Your task to perform on an android device: delete browsing data in the chrome app Image 0: 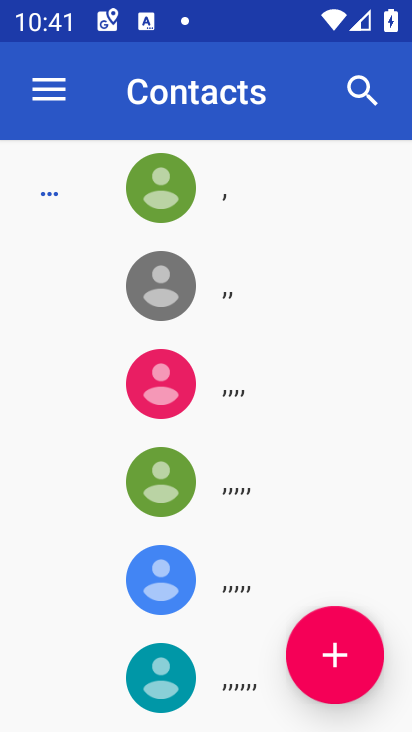
Step 0: press home button
Your task to perform on an android device: delete browsing data in the chrome app Image 1: 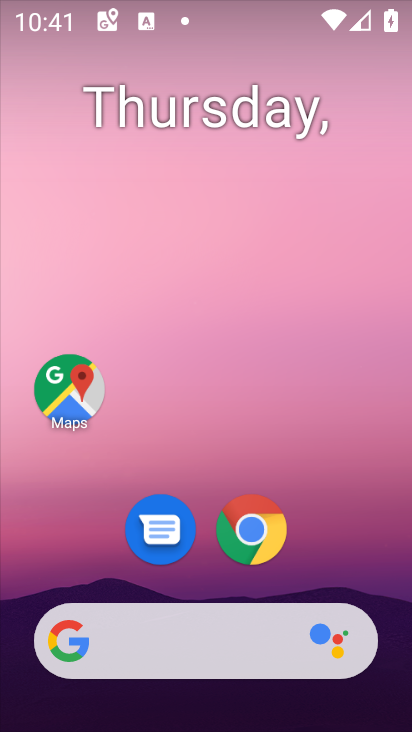
Step 1: click (253, 533)
Your task to perform on an android device: delete browsing data in the chrome app Image 2: 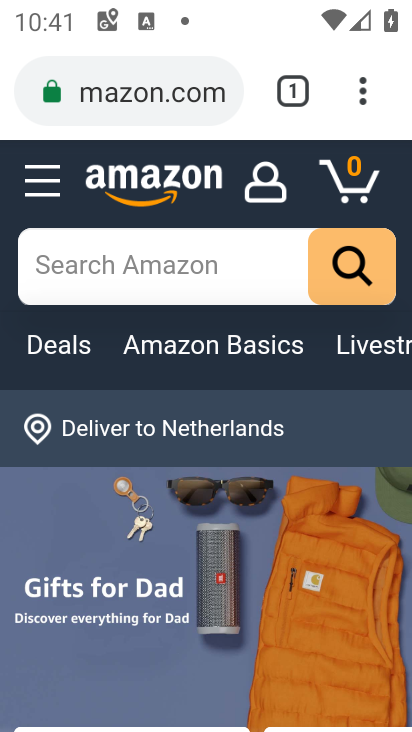
Step 2: click (367, 112)
Your task to perform on an android device: delete browsing data in the chrome app Image 3: 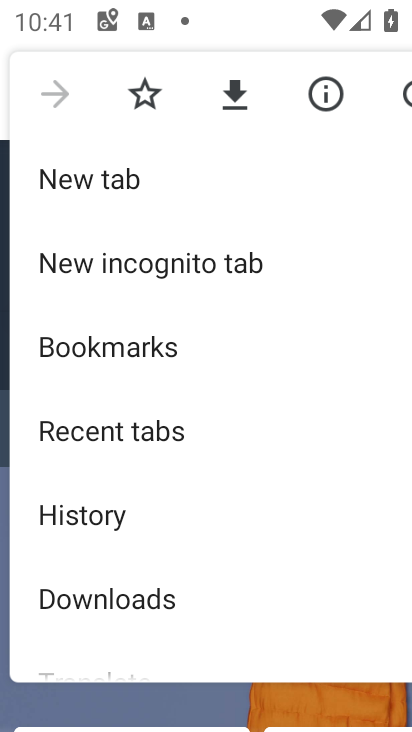
Step 3: click (127, 514)
Your task to perform on an android device: delete browsing data in the chrome app Image 4: 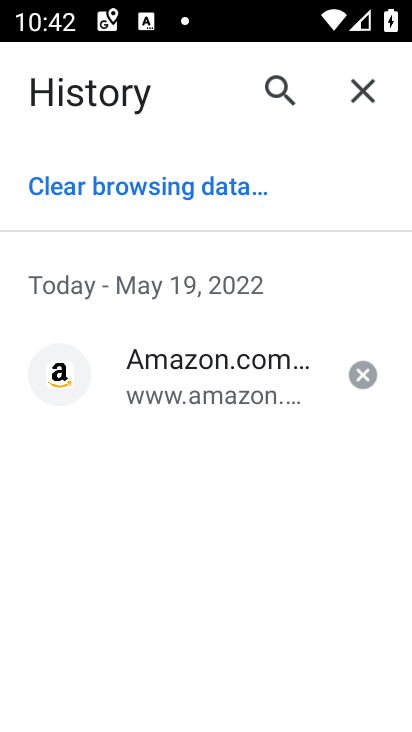
Step 4: click (70, 205)
Your task to perform on an android device: delete browsing data in the chrome app Image 5: 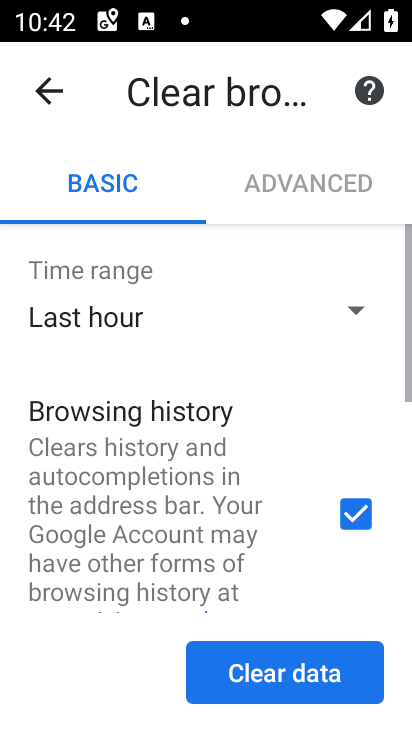
Step 5: click (302, 679)
Your task to perform on an android device: delete browsing data in the chrome app Image 6: 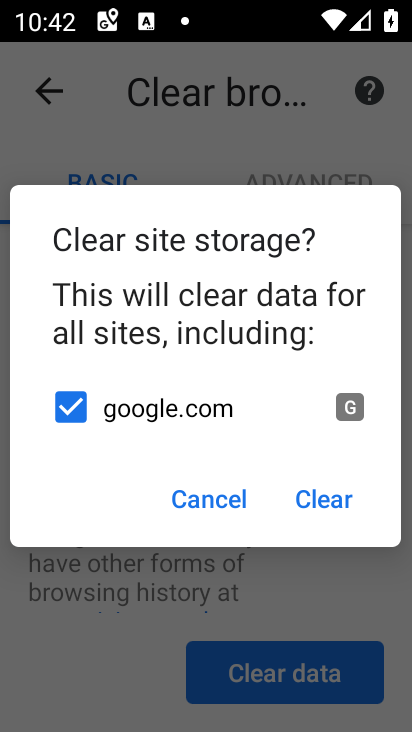
Step 6: click (327, 510)
Your task to perform on an android device: delete browsing data in the chrome app Image 7: 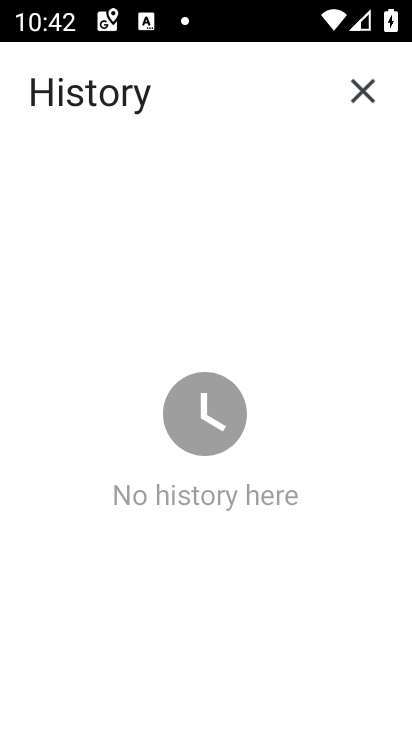
Step 7: task complete